Your task to perform on an android device: Go to Yahoo.com Image 0: 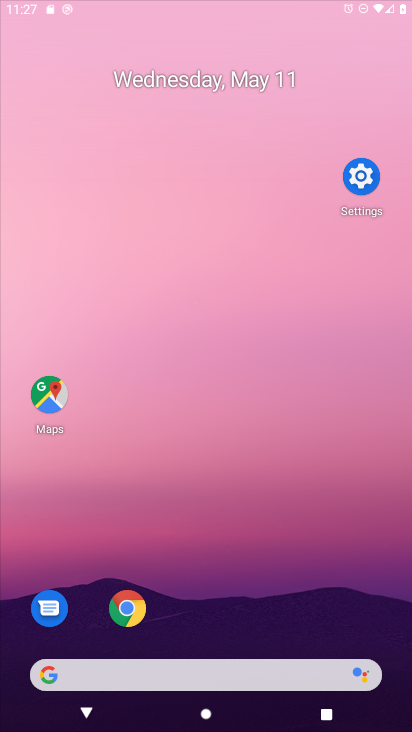
Step 0: drag from (312, 626) to (62, 107)
Your task to perform on an android device: Go to Yahoo.com Image 1: 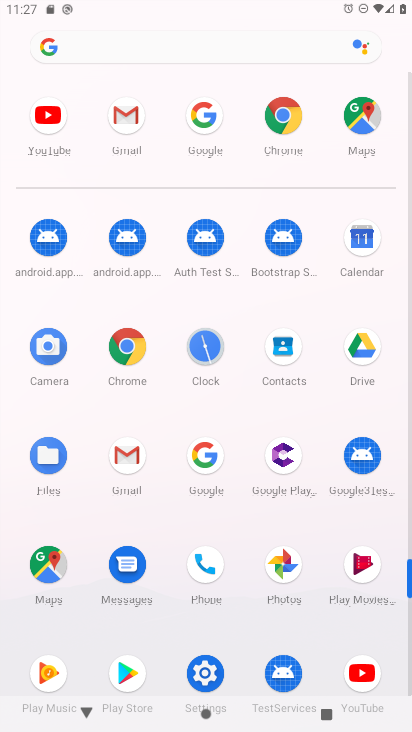
Step 1: click (270, 116)
Your task to perform on an android device: Go to Yahoo.com Image 2: 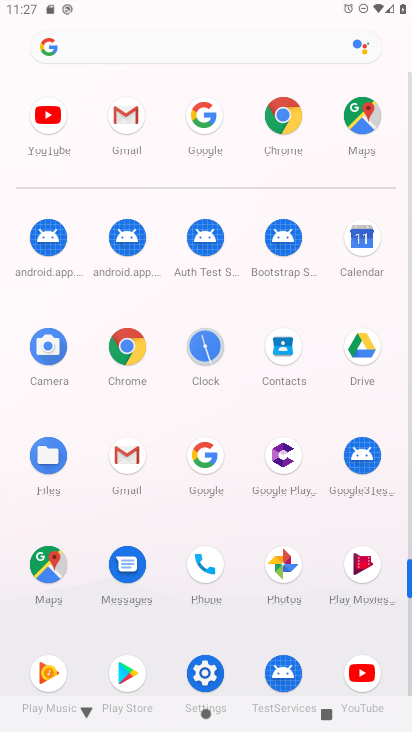
Step 2: click (291, 116)
Your task to perform on an android device: Go to Yahoo.com Image 3: 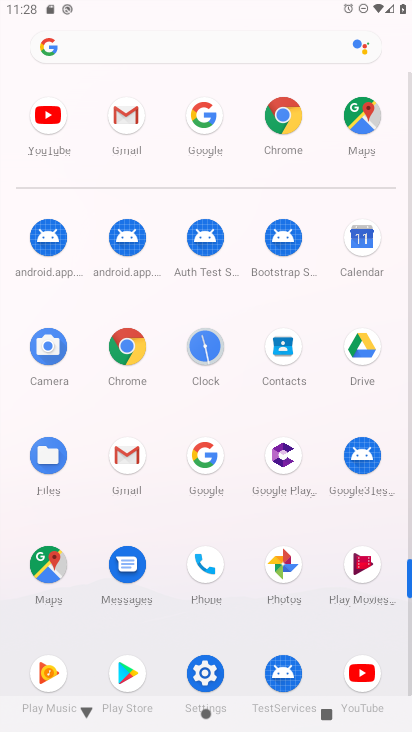
Step 3: click (283, 123)
Your task to perform on an android device: Go to Yahoo.com Image 4: 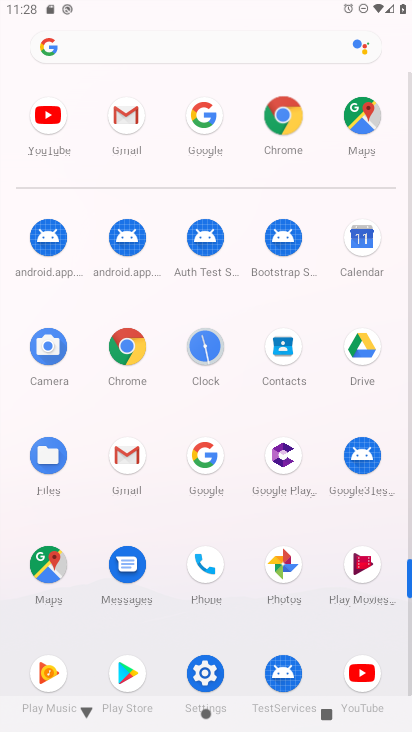
Step 4: click (283, 123)
Your task to perform on an android device: Go to Yahoo.com Image 5: 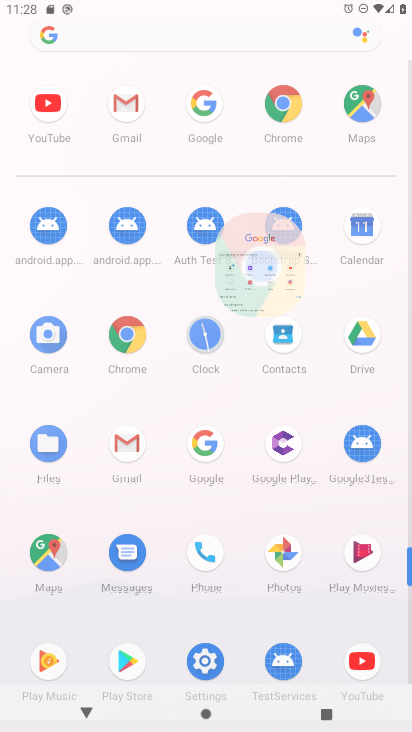
Step 5: click (283, 123)
Your task to perform on an android device: Go to Yahoo.com Image 6: 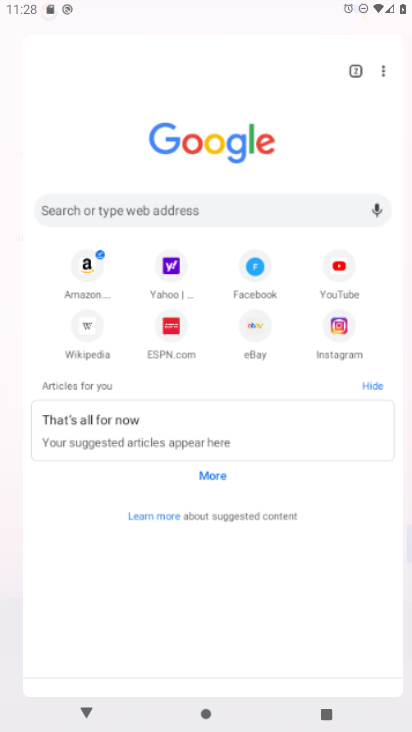
Step 6: click (283, 123)
Your task to perform on an android device: Go to Yahoo.com Image 7: 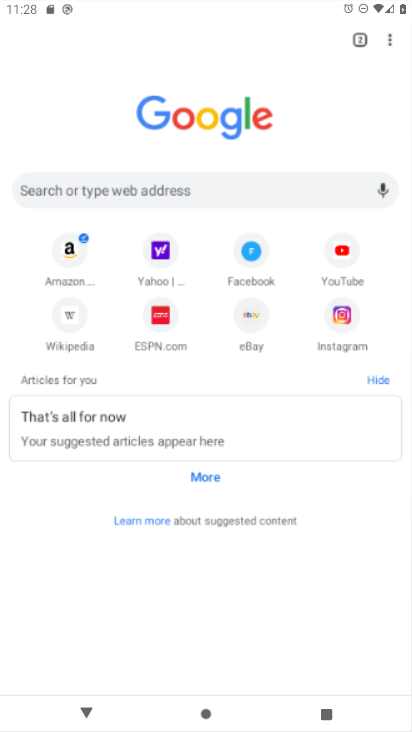
Step 7: click (269, 119)
Your task to perform on an android device: Go to Yahoo.com Image 8: 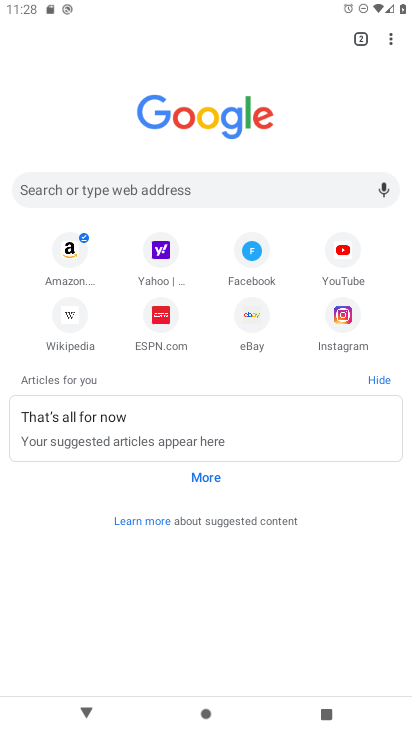
Step 8: click (159, 250)
Your task to perform on an android device: Go to Yahoo.com Image 9: 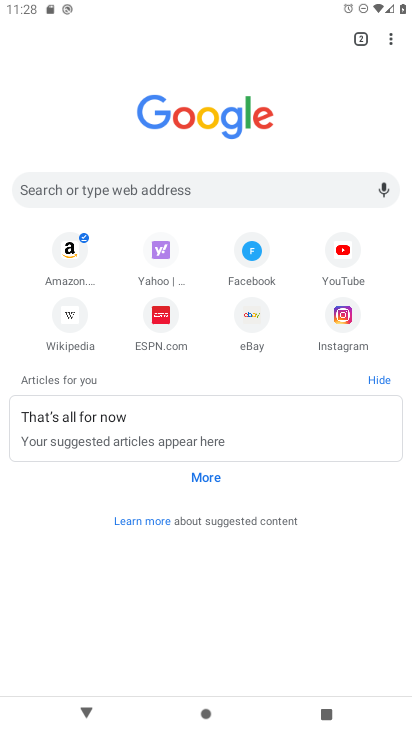
Step 9: click (159, 235)
Your task to perform on an android device: Go to Yahoo.com Image 10: 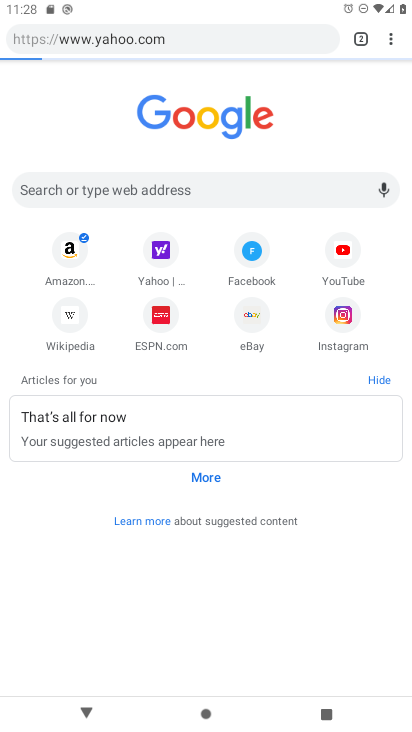
Step 10: click (165, 239)
Your task to perform on an android device: Go to Yahoo.com Image 11: 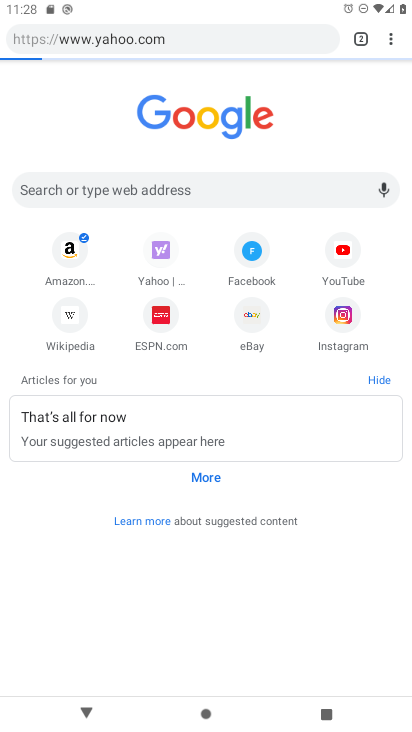
Step 11: click (166, 240)
Your task to perform on an android device: Go to Yahoo.com Image 12: 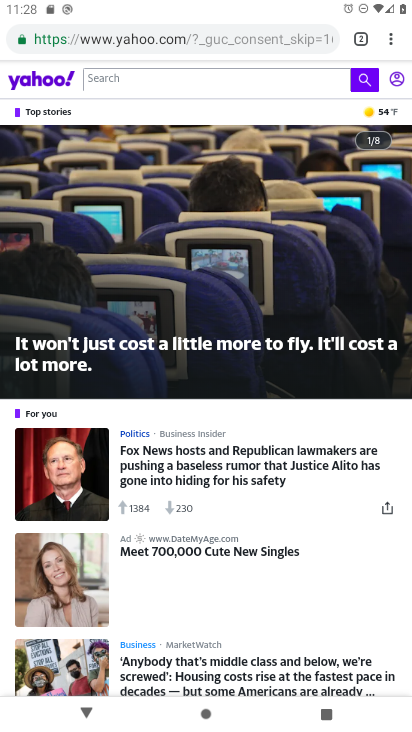
Step 12: task complete